Your task to perform on an android device: open app "Microsoft Outlook" (install if not already installed) Image 0: 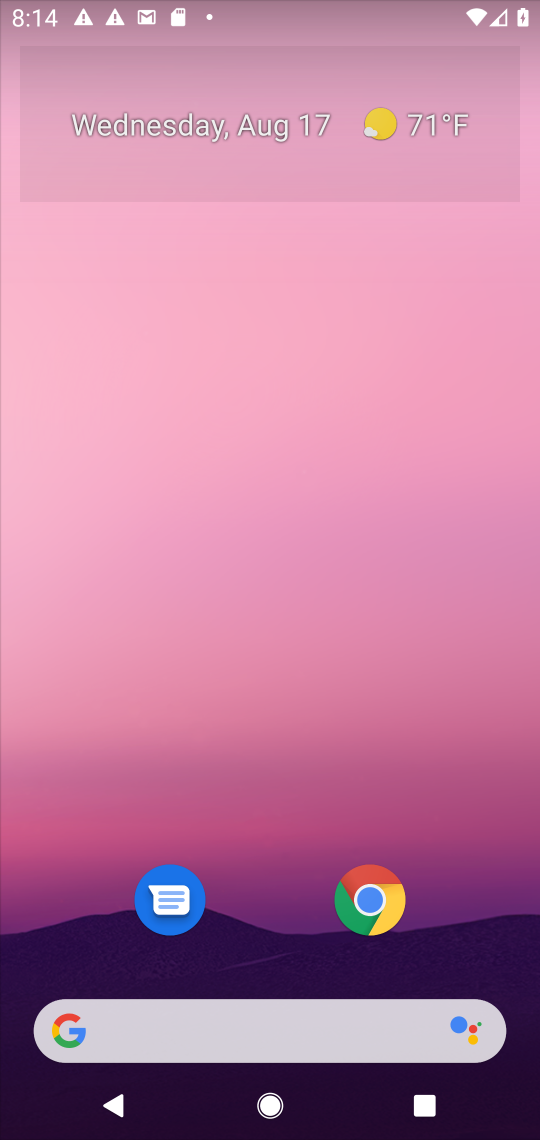
Step 0: drag from (235, 830) to (240, 76)
Your task to perform on an android device: open app "Microsoft Outlook" (install if not already installed) Image 1: 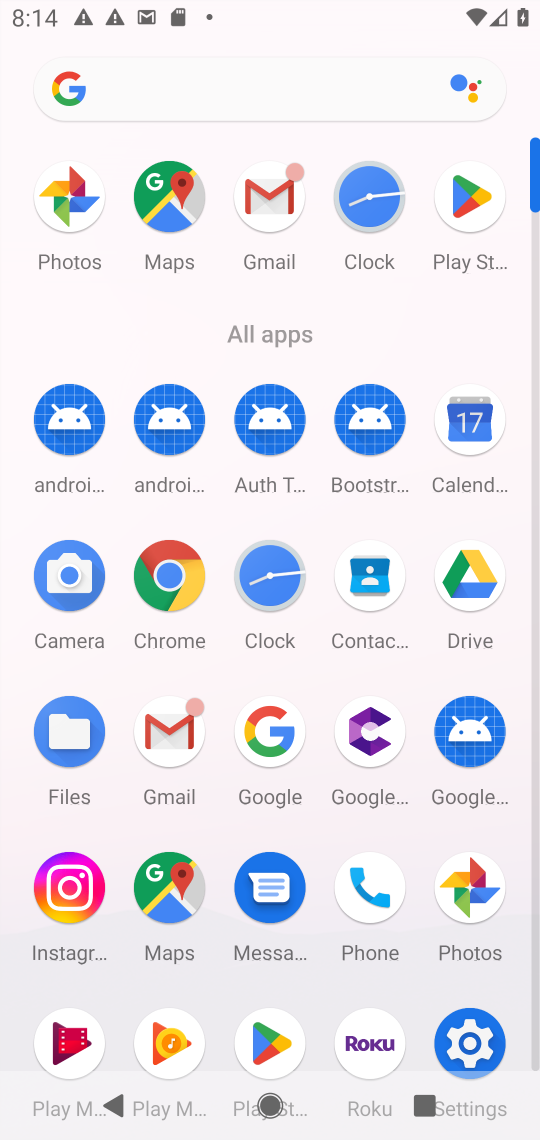
Step 1: click (462, 230)
Your task to perform on an android device: open app "Microsoft Outlook" (install if not already installed) Image 2: 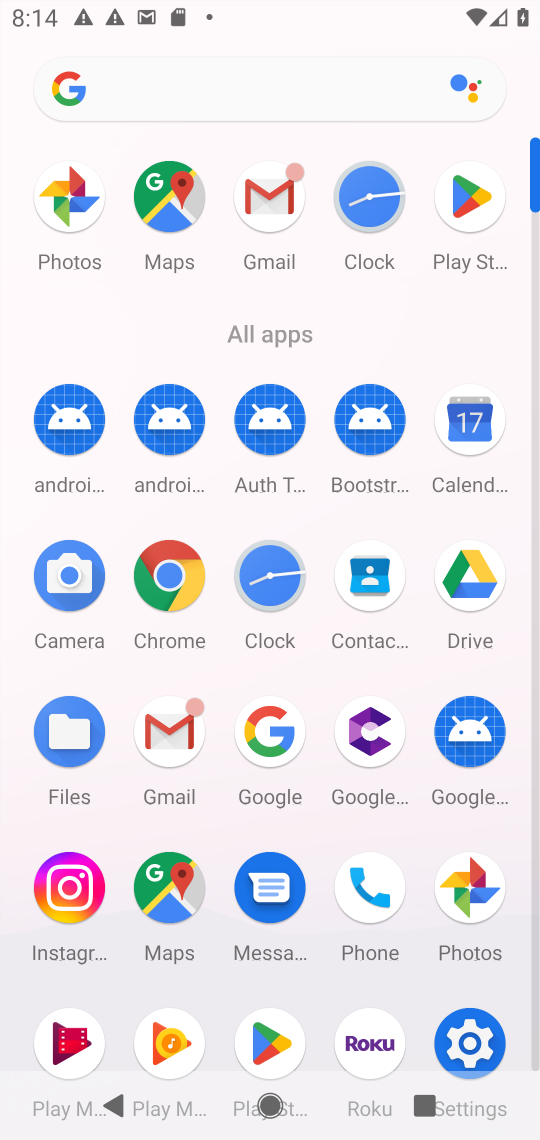
Step 2: click (460, 223)
Your task to perform on an android device: open app "Microsoft Outlook" (install if not already installed) Image 3: 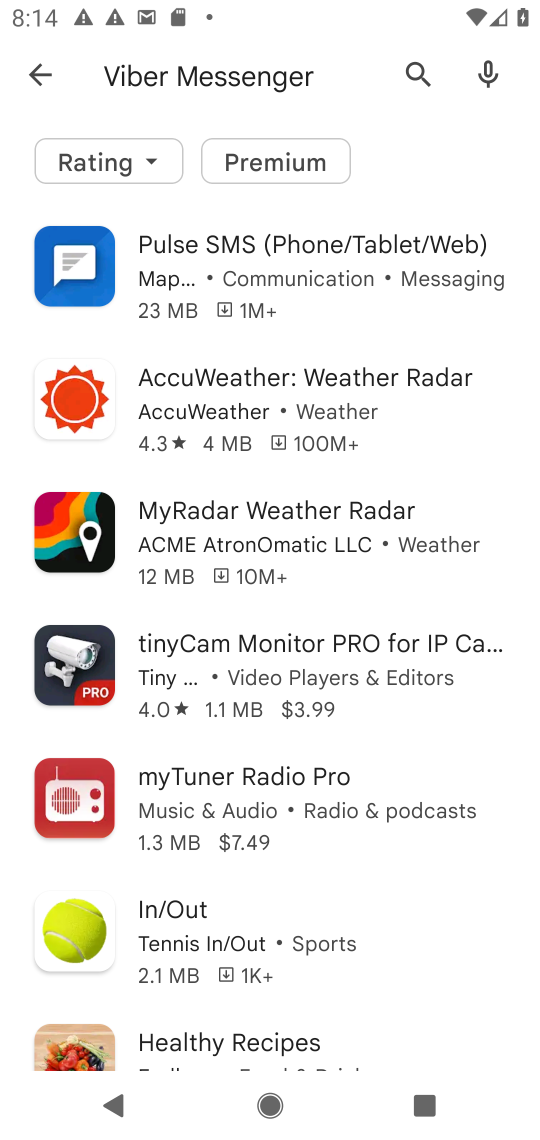
Step 3: click (33, 66)
Your task to perform on an android device: open app "Microsoft Outlook" (install if not already installed) Image 4: 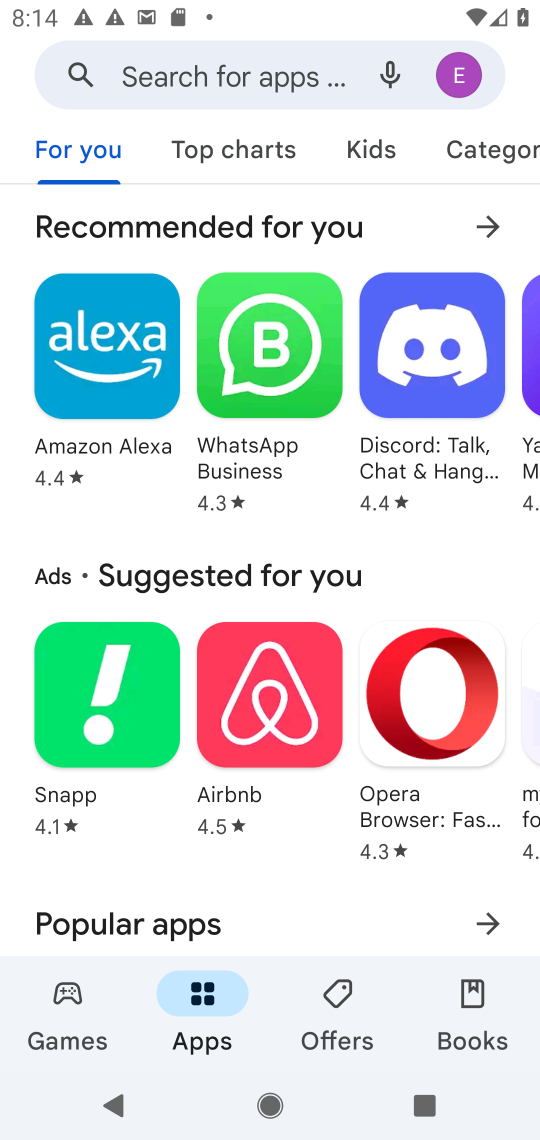
Step 4: click (151, 72)
Your task to perform on an android device: open app "Microsoft Outlook" (install if not already installed) Image 5: 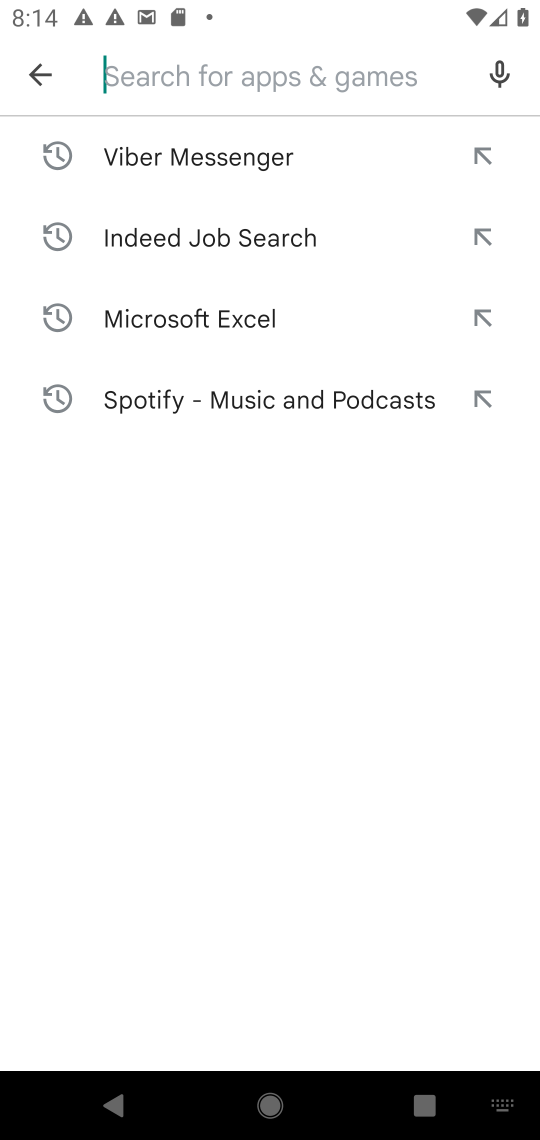
Step 5: type "Microsoft Outlook"
Your task to perform on an android device: open app "Microsoft Outlook" (install if not already installed) Image 6: 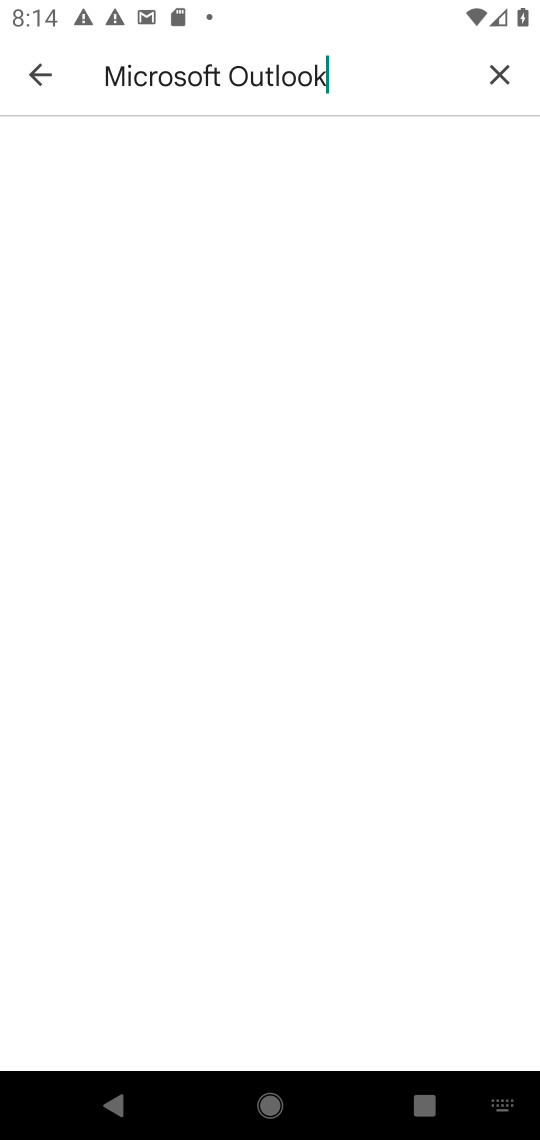
Step 6: press enter
Your task to perform on an android device: open app "Microsoft Outlook" (install if not already installed) Image 7: 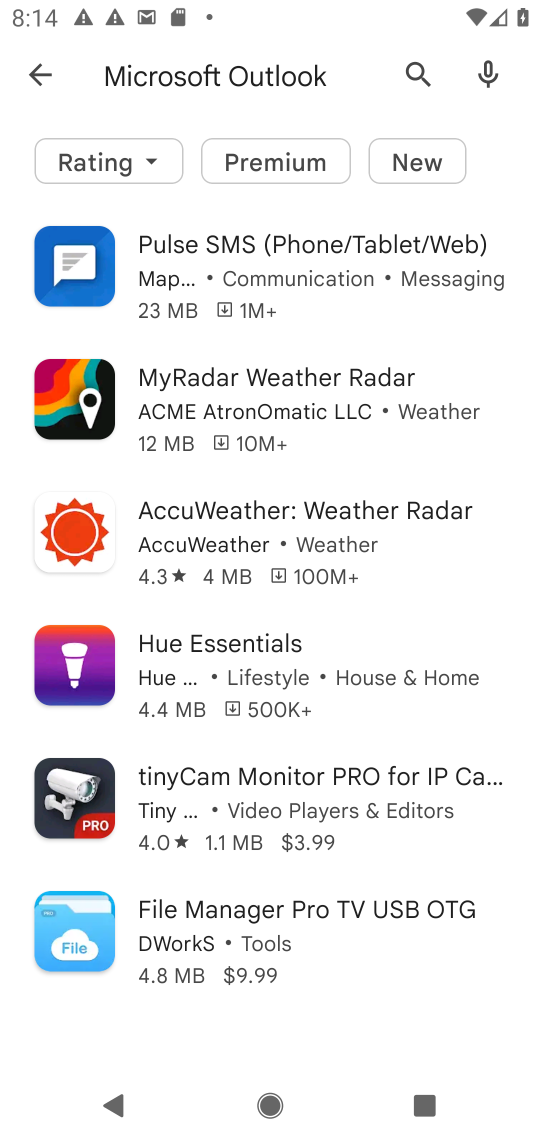
Step 7: task complete